Your task to perform on an android device: create a new album in the google photos Image 0: 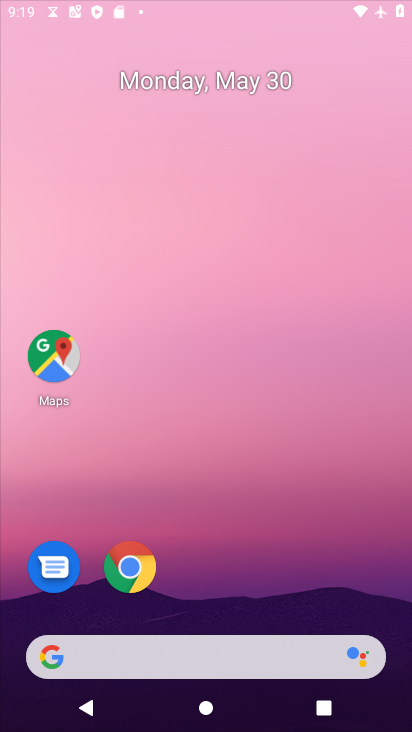
Step 0: click (158, 114)
Your task to perform on an android device: create a new album in the google photos Image 1: 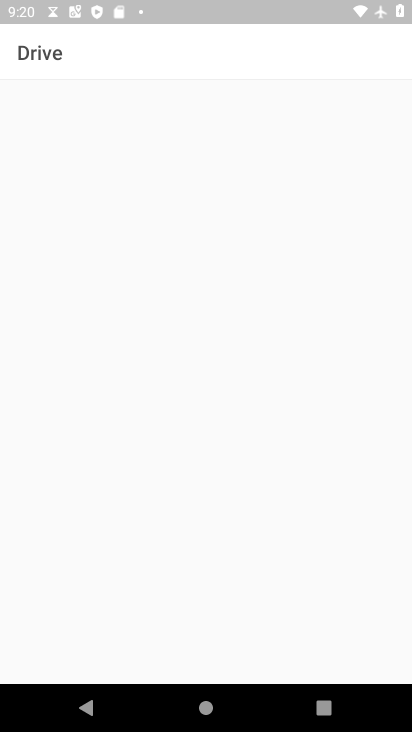
Step 1: press home button
Your task to perform on an android device: create a new album in the google photos Image 2: 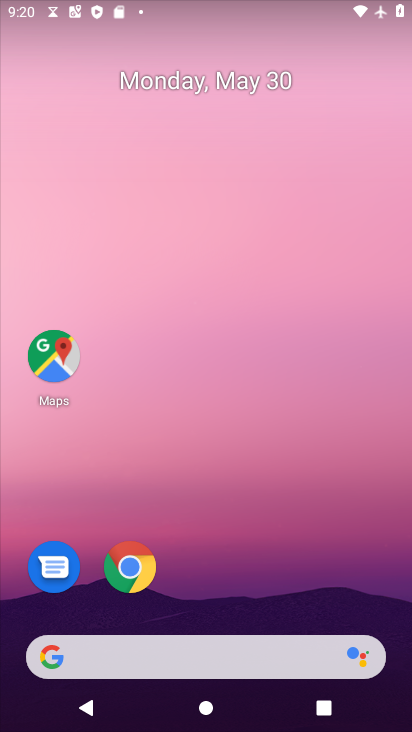
Step 2: drag from (218, 601) to (178, 158)
Your task to perform on an android device: create a new album in the google photos Image 3: 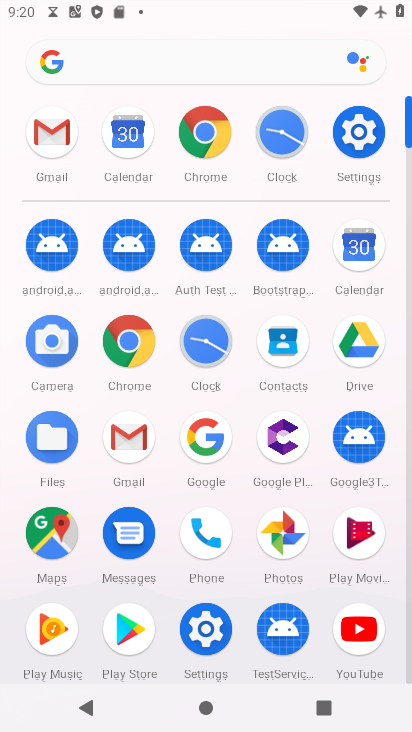
Step 3: click (279, 536)
Your task to perform on an android device: create a new album in the google photos Image 4: 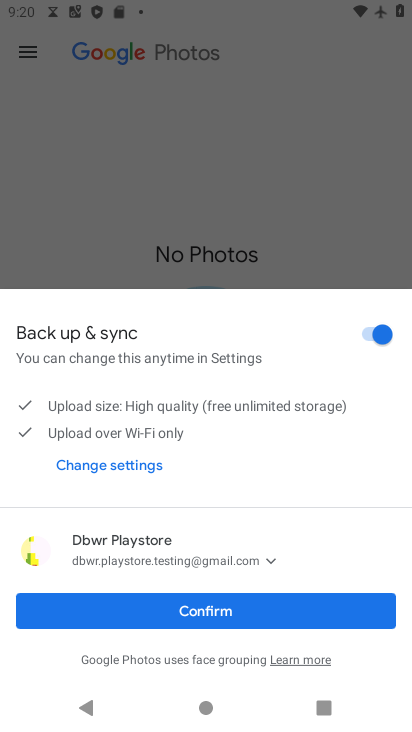
Step 4: click (241, 610)
Your task to perform on an android device: create a new album in the google photos Image 5: 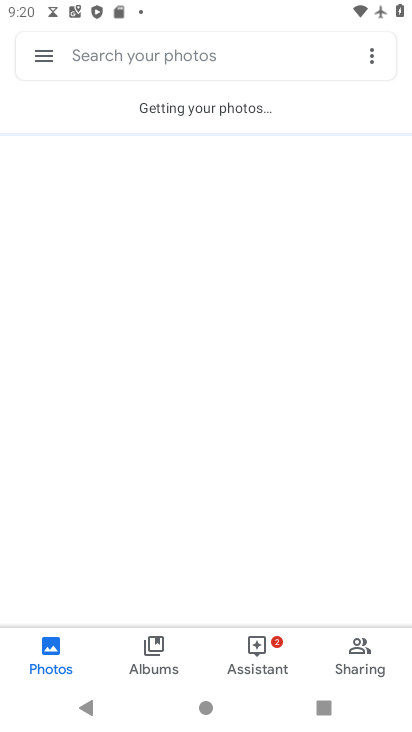
Step 5: click (276, 647)
Your task to perform on an android device: create a new album in the google photos Image 6: 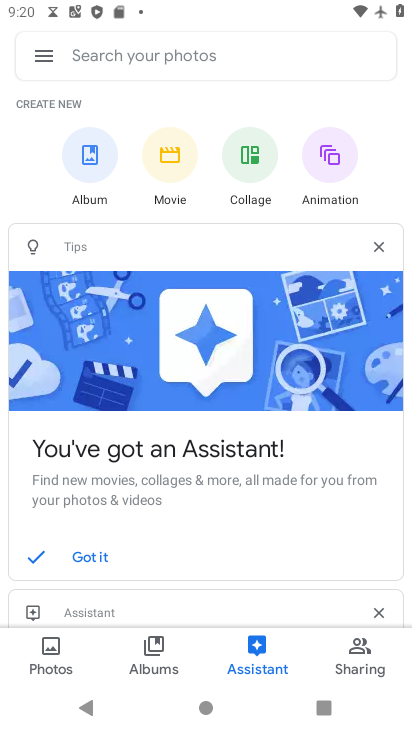
Step 6: click (96, 162)
Your task to perform on an android device: create a new album in the google photos Image 7: 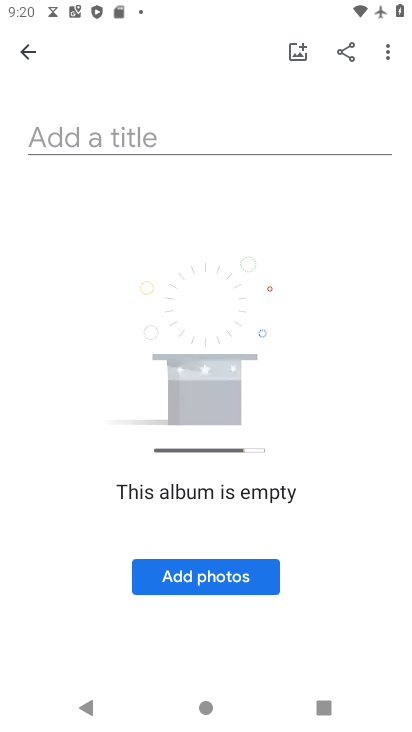
Step 7: click (238, 131)
Your task to perform on an android device: create a new album in the google photos Image 8: 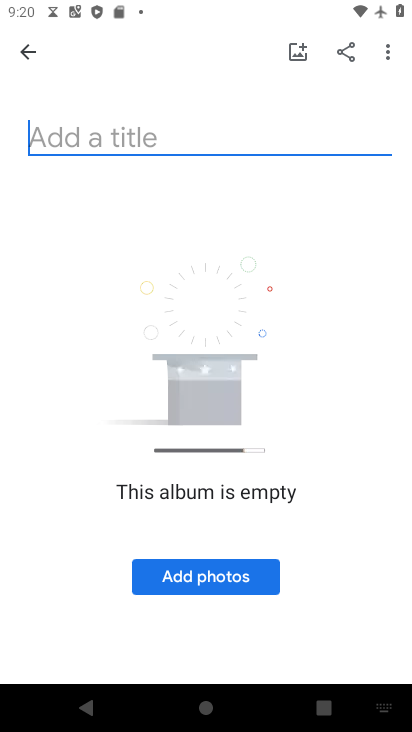
Step 8: type "vbjhbvjhb"
Your task to perform on an android device: create a new album in the google photos Image 9: 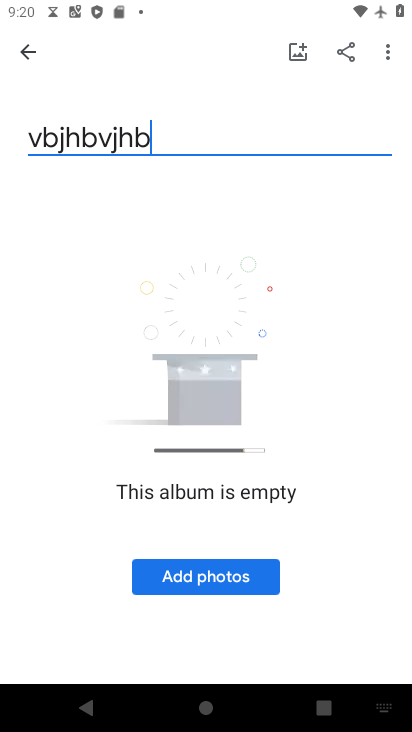
Step 9: click (253, 578)
Your task to perform on an android device: create a new album in the google photos Image 10: 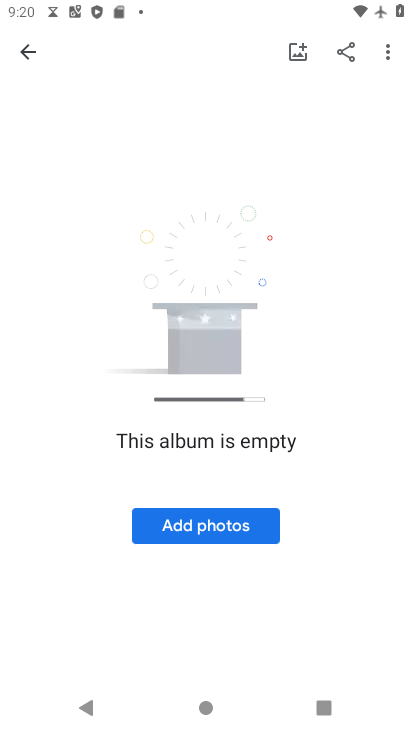
Step 10: click (238, 528)
Your task to perform on an android device: create a new album in the google photos Image 11: 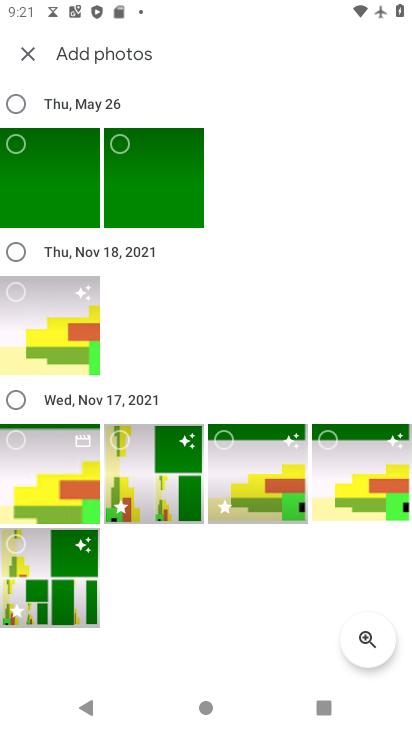
Step 11: click (211, 468)
Your task to perform on an android device: create a new album in the google photos Image 12: 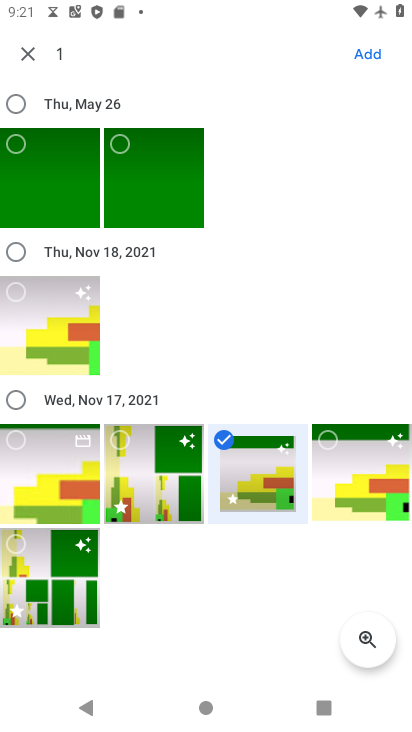
Step 12: click (134, 459)
Your task to perform on an android device: create a new album in the google photos Image 13: 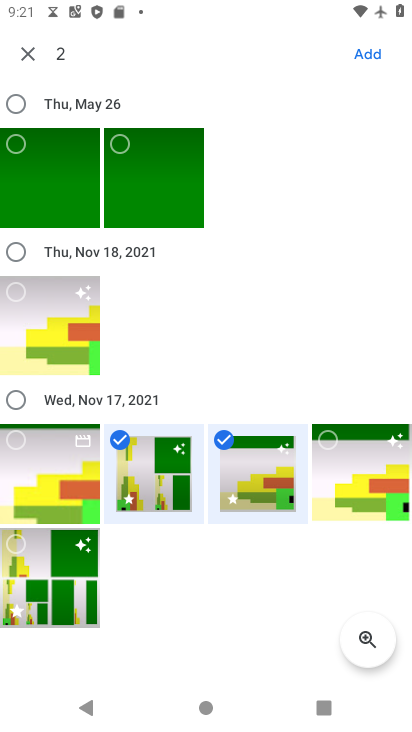
Step 13: click (364, 56)
Your task to perform on an android device: create a new album in the google photos Image 14: 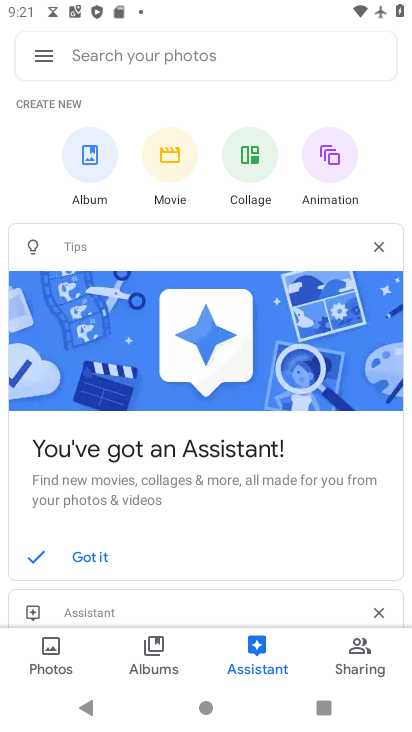
Step 14: task complete